Your task to perform on an android device: Go to privacy settings Image 0: 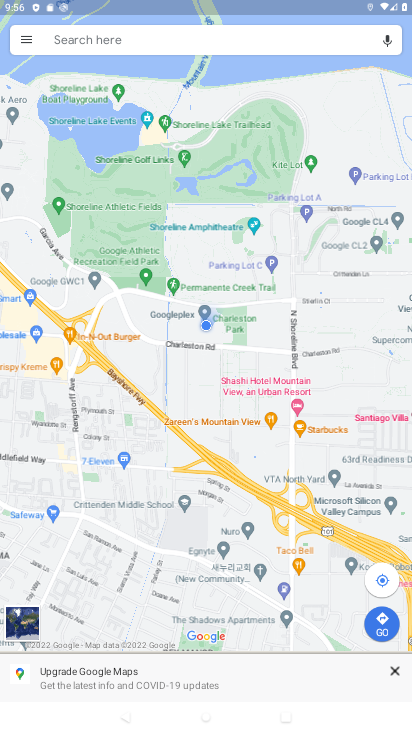
Step 0: press home button
Your task to perform on an android device: Go to privacy settings Image 1: 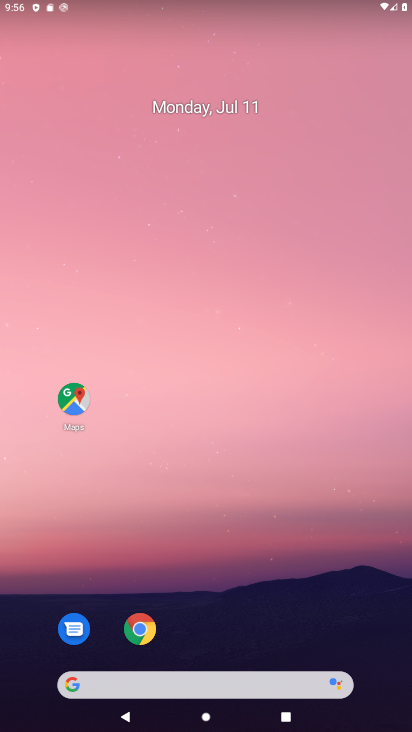
Step 1: drag from (222, 624) to (231, 153)
Your task to perform on an android device: Go to privacy settings Image 2: 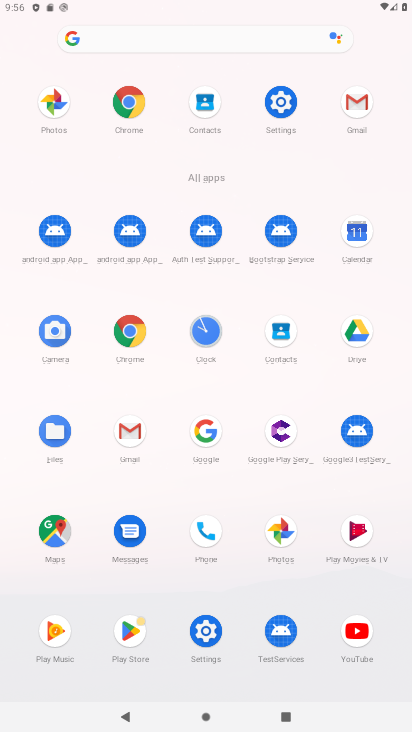
Step 2: click (259, 110)
Your task to perform on an android device: Go to privacy settings Image 3: 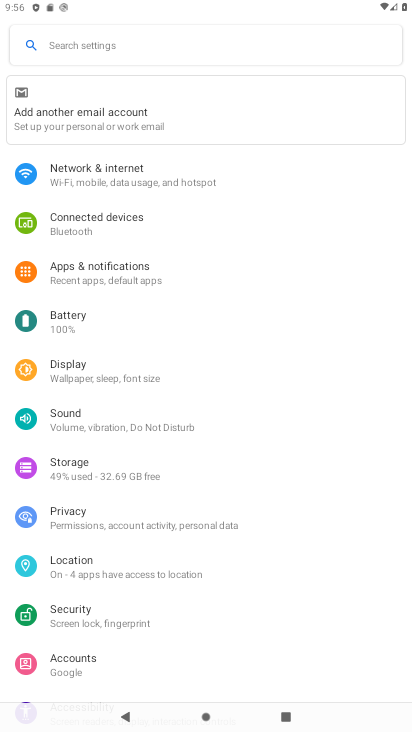
Step 3: click (84, 517)
Your task to perform on an android device: Go to privacy settings Image 4: 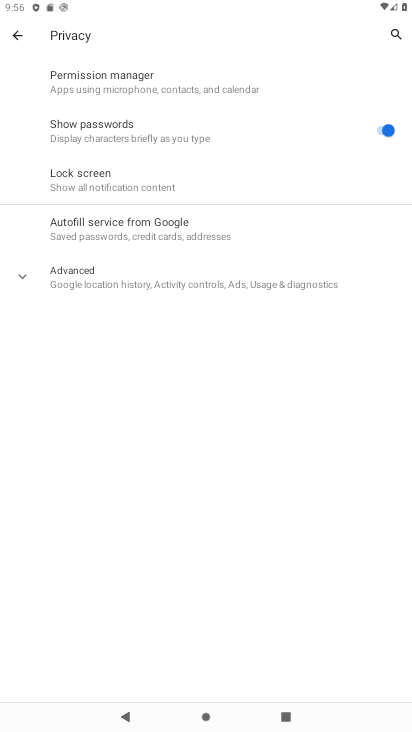
Step 4: task complete